Your task to perform on an android device: clear all cookies in the chrome app Image 0: 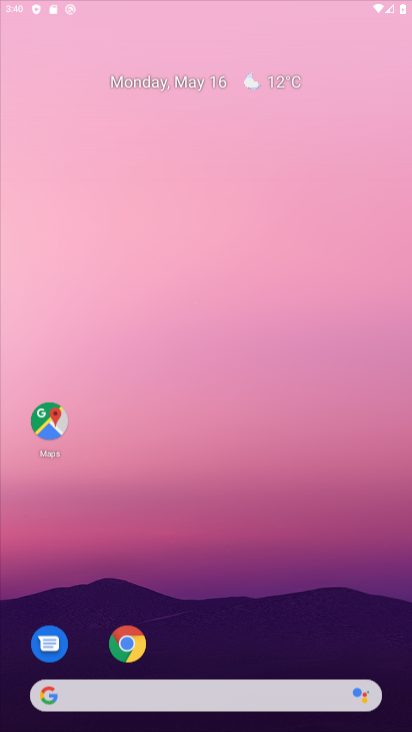
Step 0: click (284, 171)
Your task to perform on an android device: clear all cookies in the chrome app Image 1: 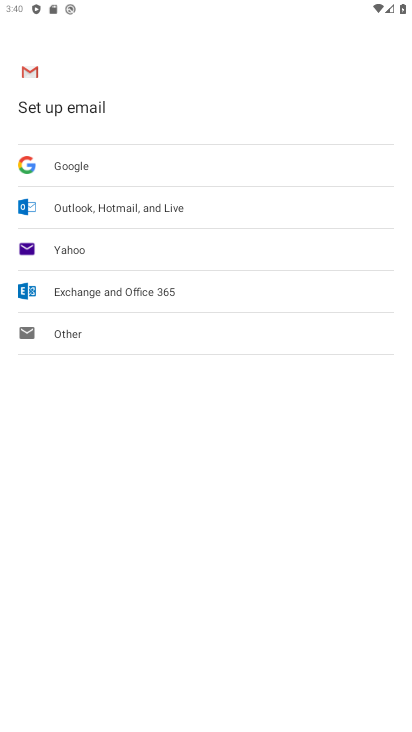
Step 1: press back button
Your task to perform on an android device: clear all cookies in the chrome app Image 2: 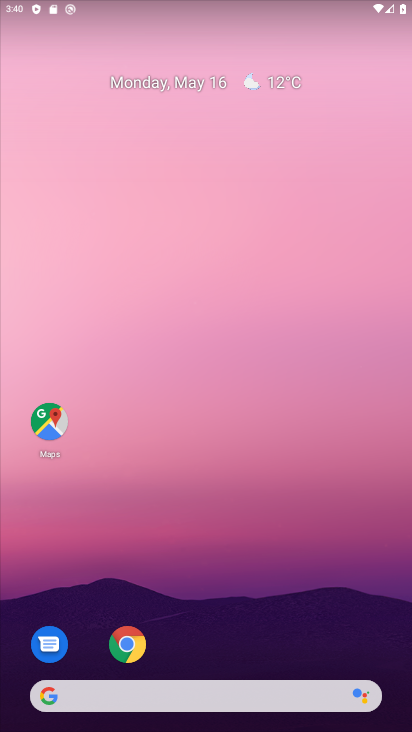
Step 2: click (124, 636)
Your task to perform on an android device: clear all cookies in the chrome app Image 3: 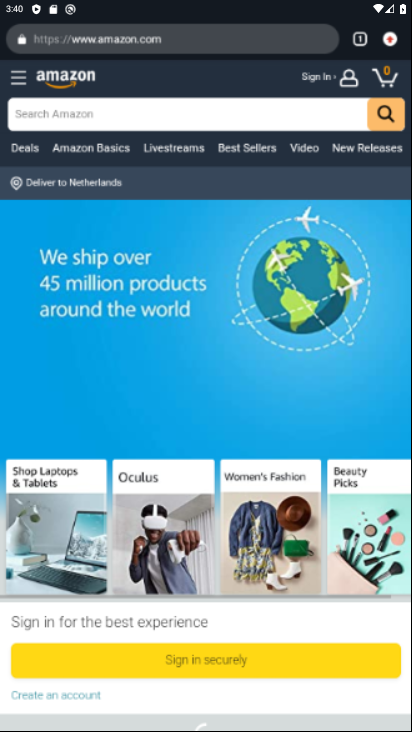
Step 3: drag from (392, 34) to (313, 173)
Your task to perform on an android device: clear all cookies in the chrome app Image 4: 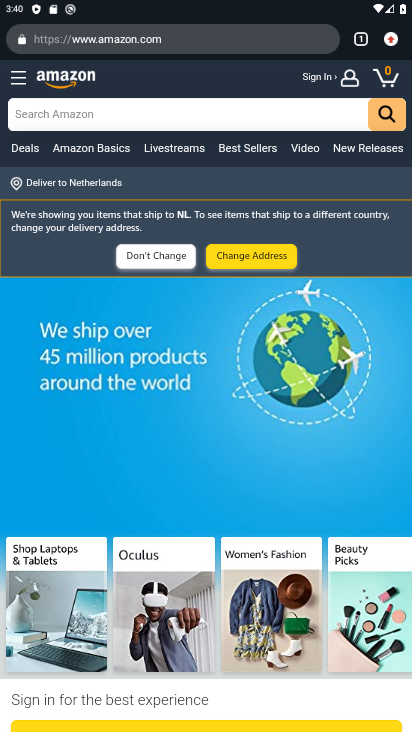
Step 4: drag from (391, 39) to (257, 269)
Your task to perform on an android device: clear all cookies in the chrome app Image 5: 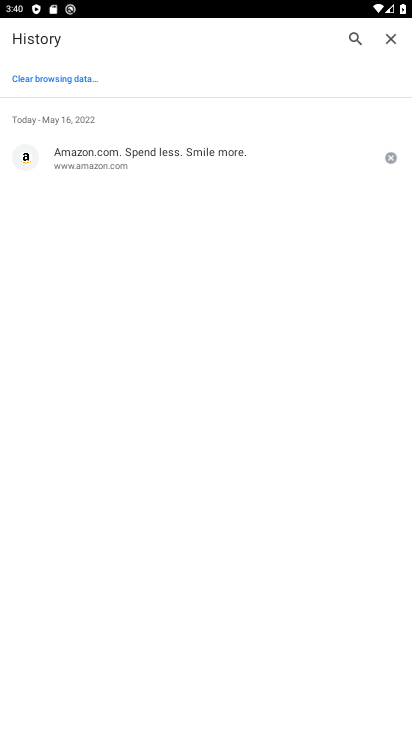
Step 5: click (48, 74)
Your task to perform on an android device: clear all cookies in the chrome app Image 6: 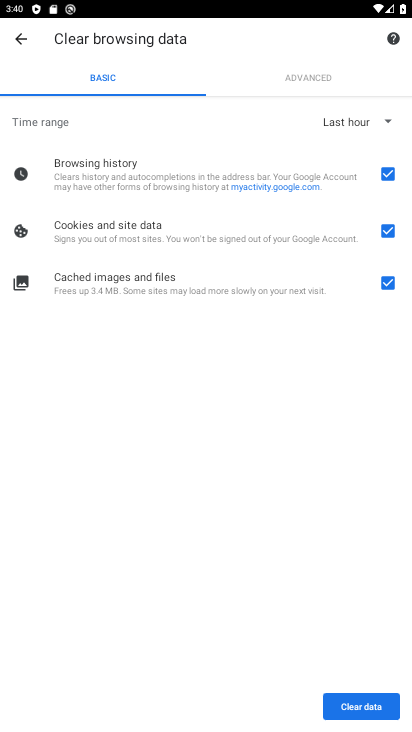
Step 6: click (385, 172)
Your task to perform on an android device: clear all cookies in the chrome app Image 7: 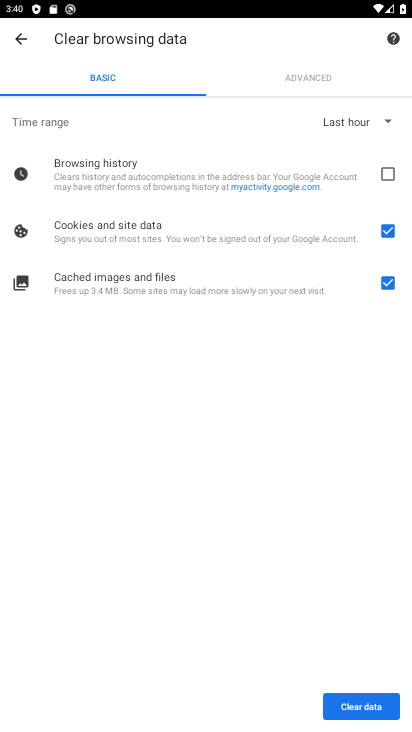
Step 7: click (393, 283)
Your task to perform on an android device: clear all cookies in the chrome app Image 8: 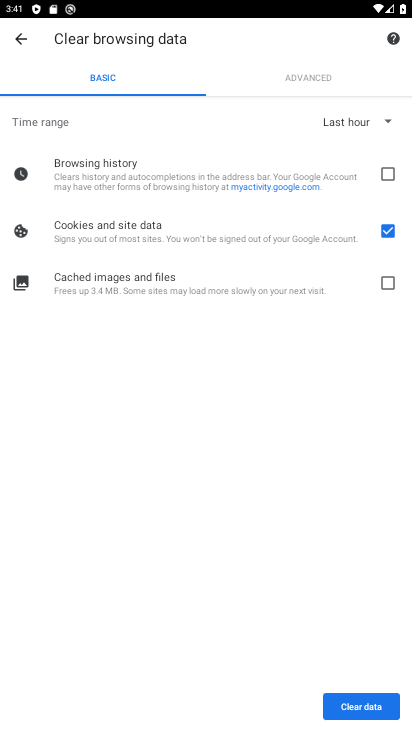
Step 8: click (354, 705)
Your task to perform on an android device: clear all cookies in the chrome app Image 9: 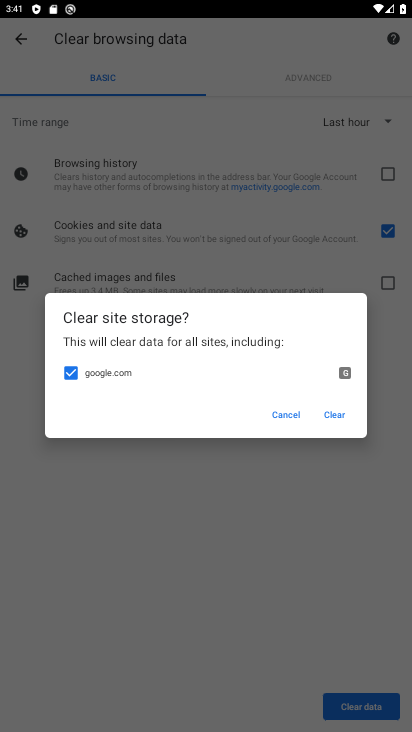
Step 9: click (320, 419)
Your task to perform on an android device: clear all cookies in the chrome app Image 10: 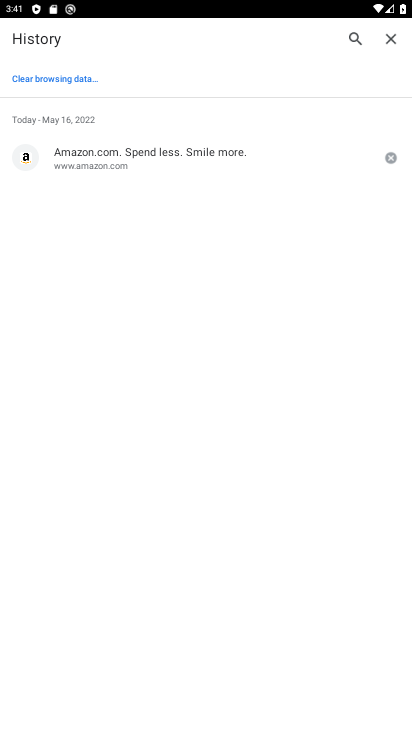
Step 10: task complete